Your task to perform on an android device: toggle data saver in the chrome app Image 0: 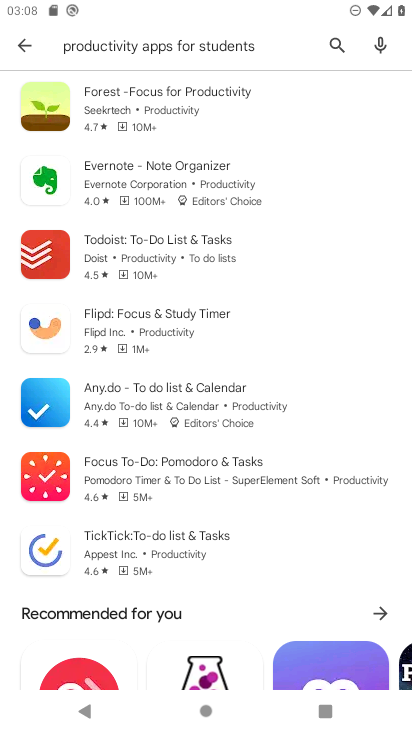
Step 0: press home button
Your task to perform on an android device: toggle data saver in the chrome app Image 1: 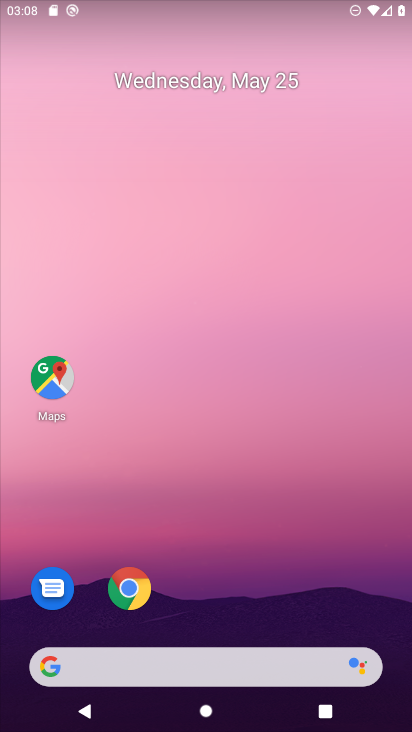
Step 1: click (125, 580)
Your task to perform on an android device: toggle data saver in the chrome app Image 2: 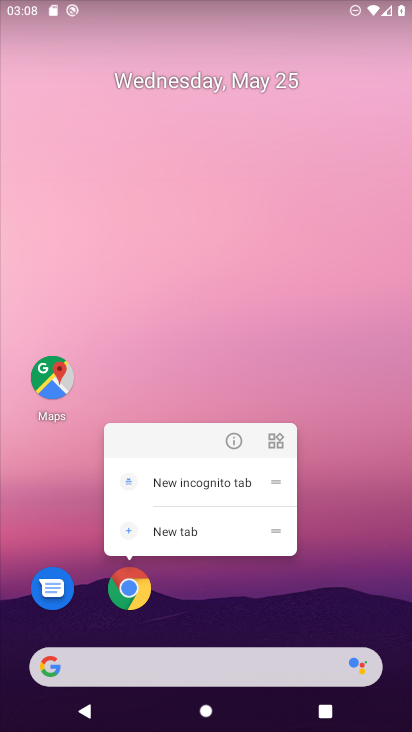
Step 2: click (122, 590)
Your task to perform on an android device: toggle data saver in the chrome app Image 3: 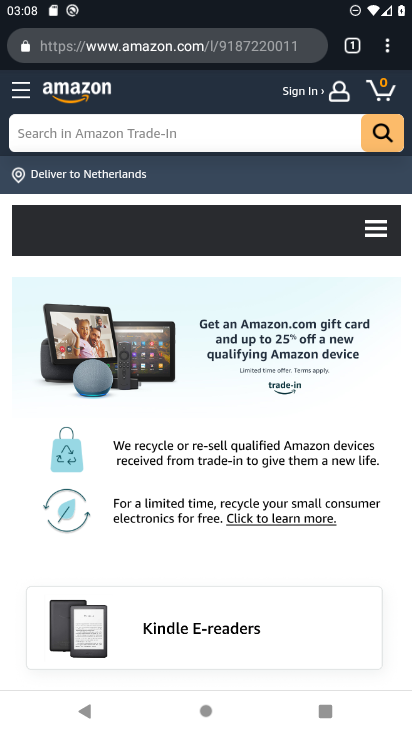
Step 3: click (390, 41)
Your task to perform on an android device: toggle data saver in the chrome app Image 4: 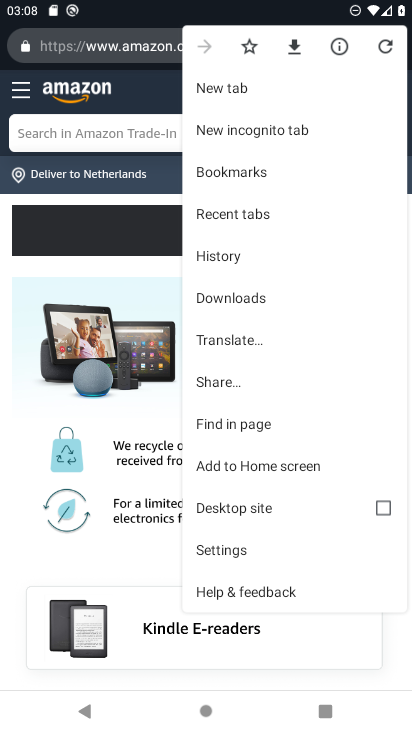
Step 4: click (235, 547)
Your task to perform on an android device: toggle data saver in the chrome app Image 5: 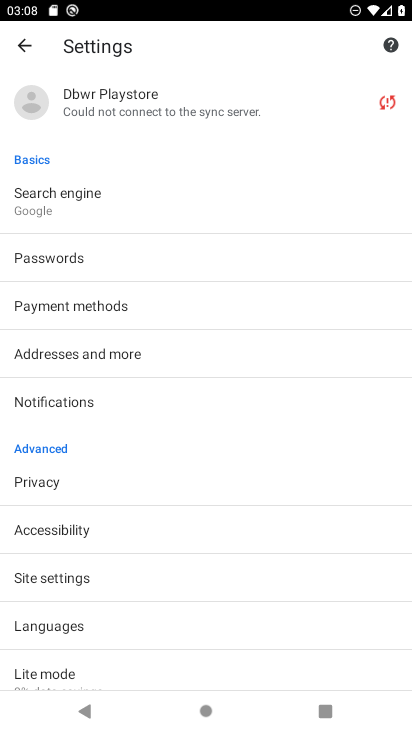
Step 5: drag from (130, 462) to (146, 195)
Your task to perform on an android device: toggle data saver in the chrome app Image 6: 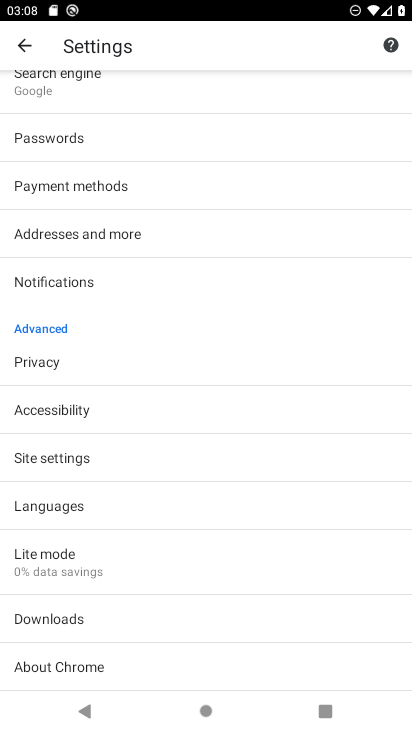
Step 6: click (59, 561)
Your task to perform on an android device: toggle data saver in the chrome app Image 7: 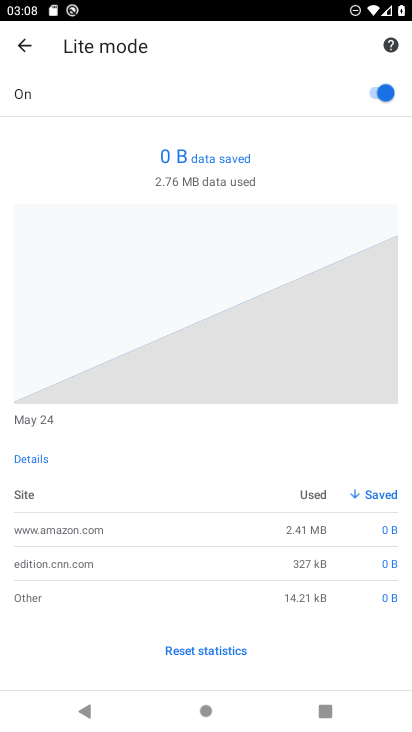
Step 7: drag from (59, 561) to (82, 75)
Your task to perform on an android device: toggle data saver in the chrome app Image 8: 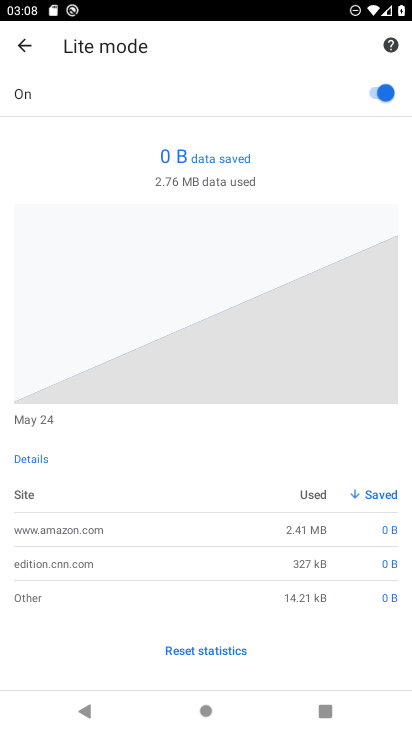
Step 8: click (297, 102)
Your task to perform on an android device: toggle data saver in the chrome app Image 9: 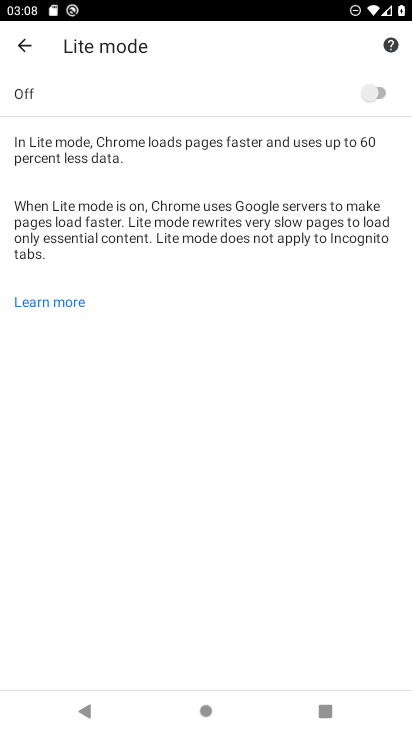
Step 9: task complete